Your task to perform on an android device: turn notification dots off Image 0: 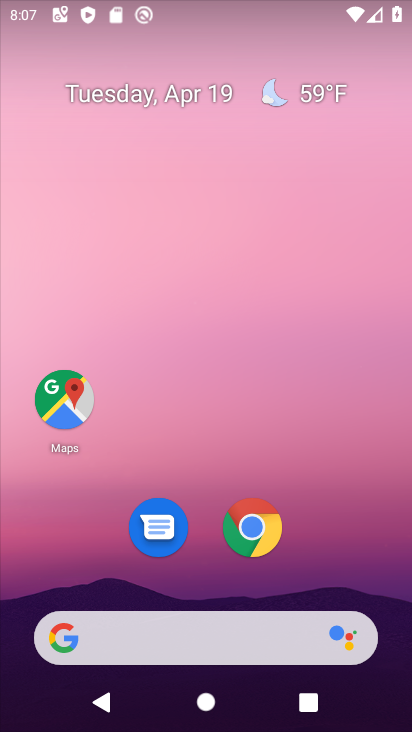
Step 0: drag from (190, 589) to (220, 166)
Your task to perform on an android device: turn notification dots off Image 1: 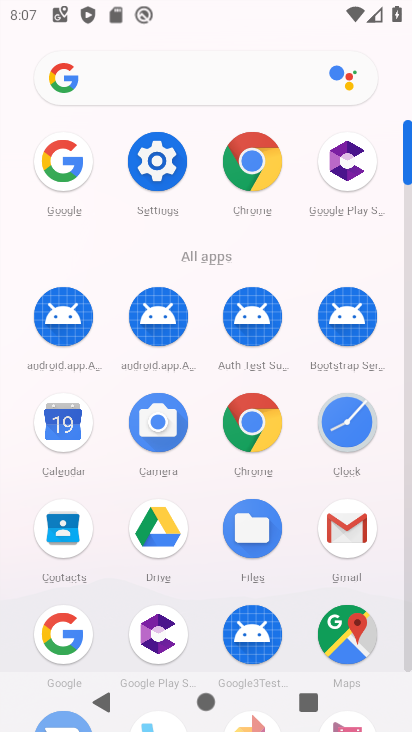
Step 1: click (138, 175)
Your task to perform on an android device: turn notification dots off Image 2: 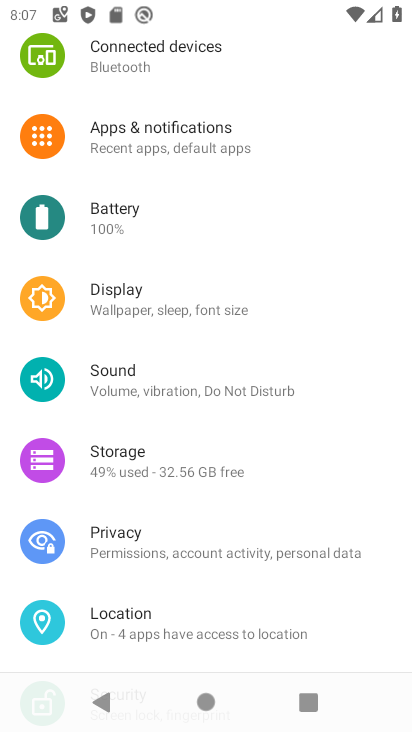
Step 2: click (231, 147)
Your task to perform on an android device: turn notification dots off Image 3: 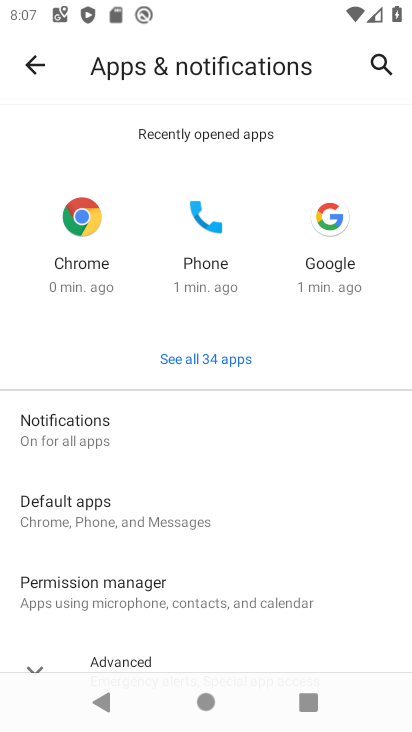
Step 3: click (163, 437)
Your task to perform on an android device: turn notification dots off Image 4: 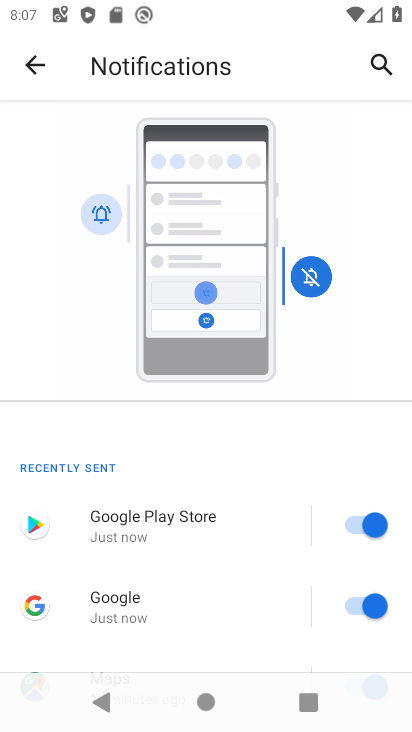
Step 4: drag from (211, 658) to (262, 231)
Your task to perform on an android device: turn notification dots off Image 5: 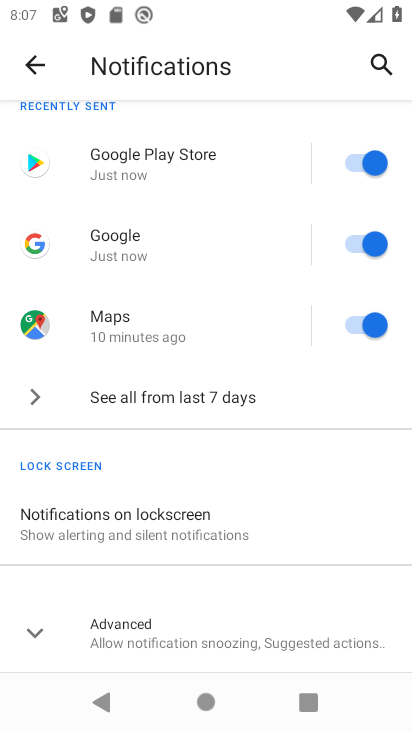
Step 5: drag from (216, 622) to (232, 298)
Your task to perform on an android device: turn notification dots off Image 6: 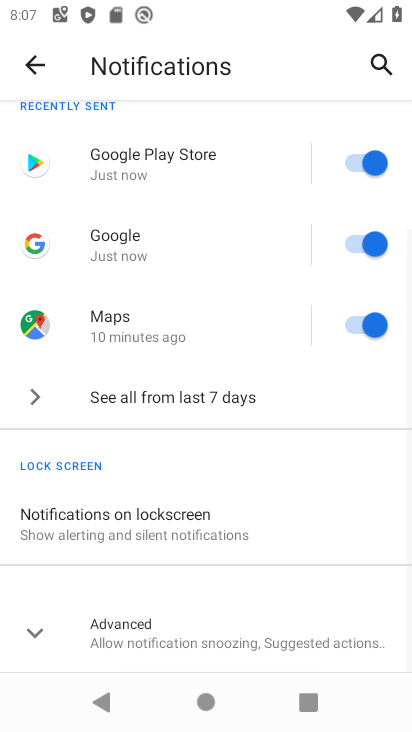
Step 6: click (154, 616)
Your task to perform on an android device: turn notification dots off Image 7: 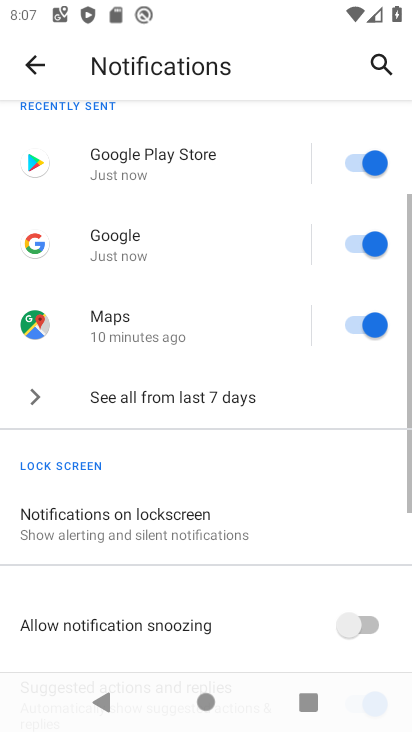
Step 7: drag from (198, 592) to (237, 272)
Your task to perform on an android device: turn notification dots off Image 8: 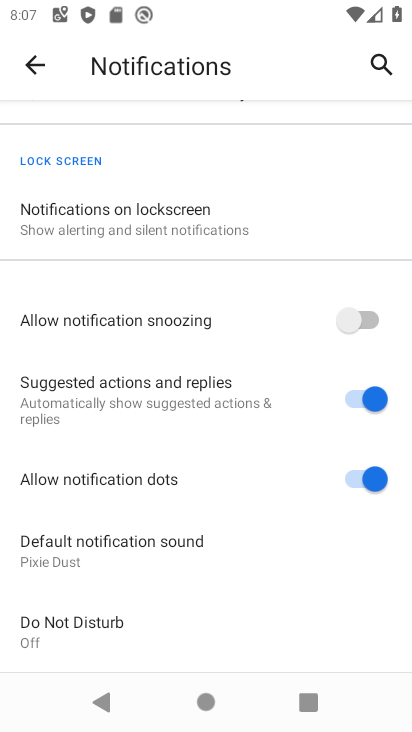
Step 8: click (349, 474)
Your task to perform on an android device: turn notification dots off Image 9: 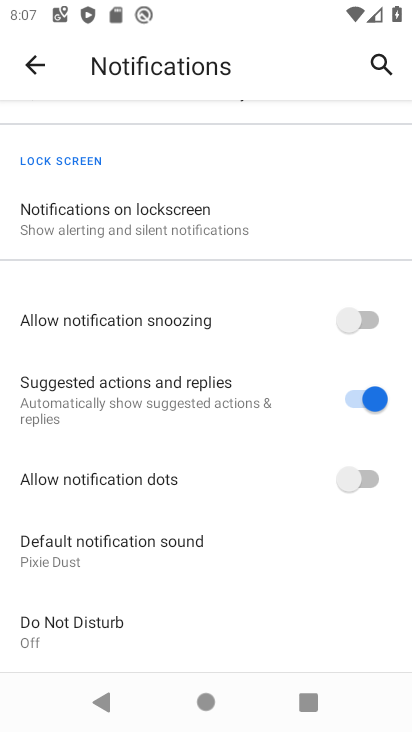
Step 9: task complete